Your task to perform on an android device: delete browsing data in the chrome app Image 0: 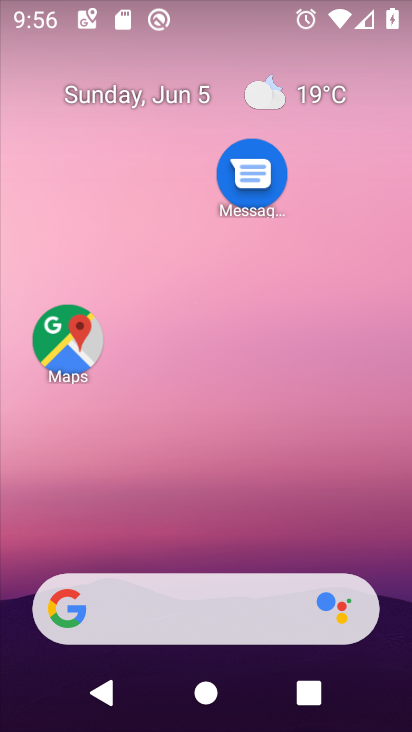
Step 0: drag from (145, 563) to (198, 364)
Your task to perform on an android device: delete browsing data in the chrome app Image 1: 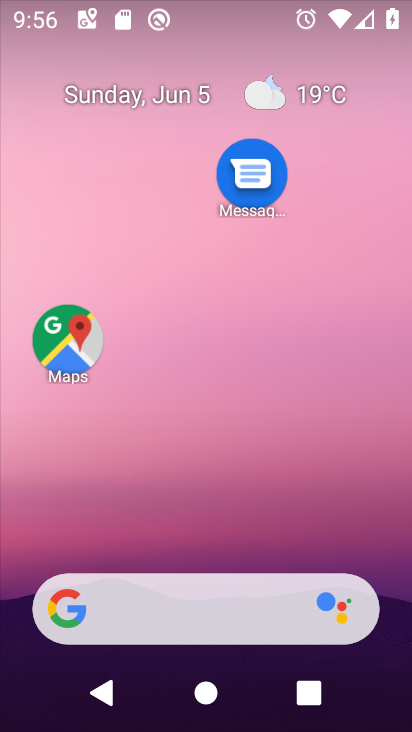
Step 1: drag from (227, 510) to (164, 8)
Your task to perform on an android device: delete browsing data in the chrome app Image 2: 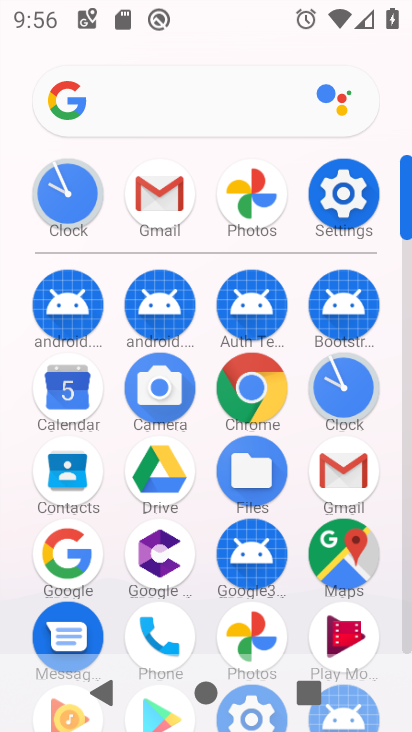
Step 2: click (259, 378)
Your task to perform on an android device: delete browsing data in the chrome app Image 3: 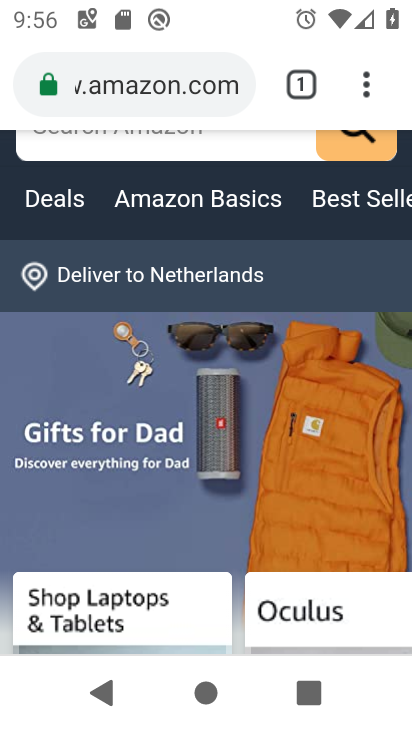
Step 3: drag from (246, 468) to (290, 23)
Your task to perform on an android device: delete browsing data in the chrome app Image 4: 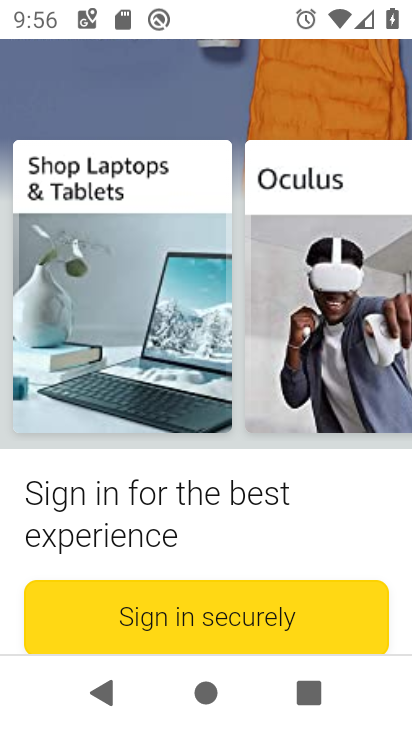
Step 4: drag from (211, 91) to (262, 648)
Your task to perform on an android device: delete browsing data in the chrome app Image 5: 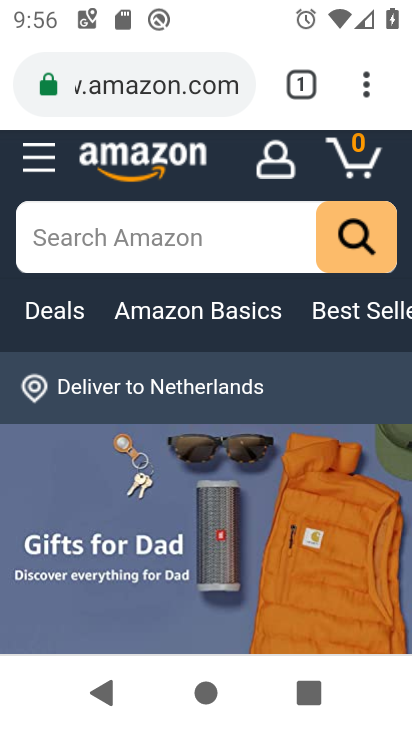
Step 5: click (361, 69)
Your task to perform on an android device: delete browsing data in the chrome app Image 6: 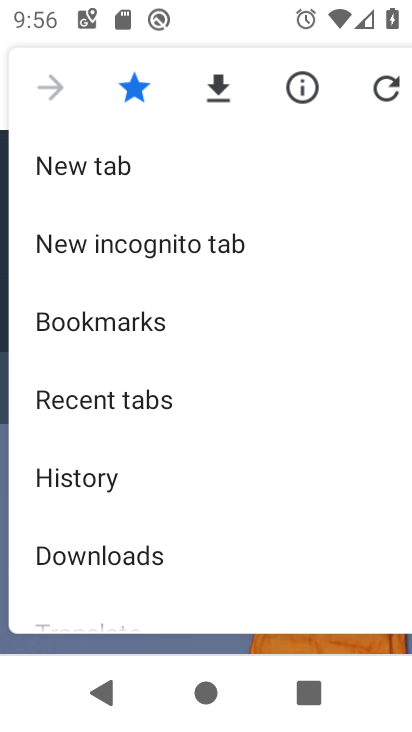
Step 6: drag from (181, 537) to (298, 86)
Your task to perform on an android device: delete browsing data in the chrome app Image 7: 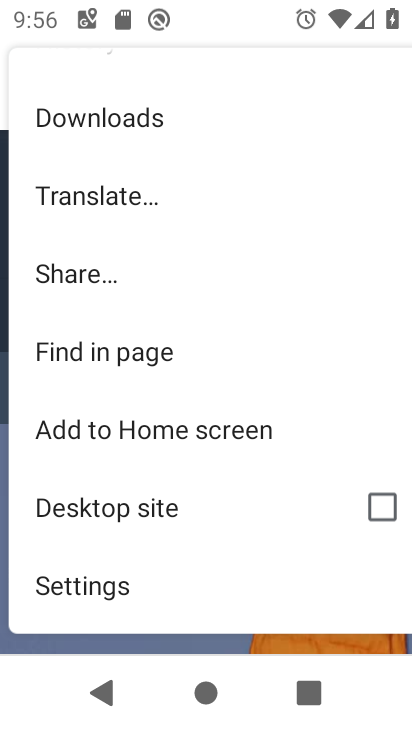
Step 7: click (121, 585)
Your task to perform on an android device: delete browsing data in the chrome app Image 8: 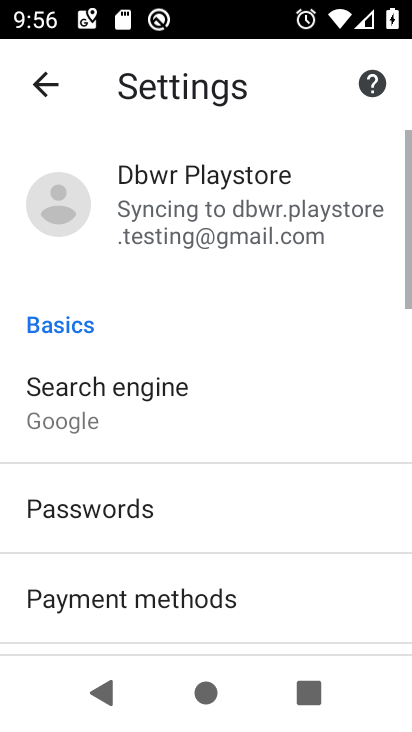
Step 8: click (45, 83)
Your task to perform on an android device: delete browsing data in the chrome app Image 9: 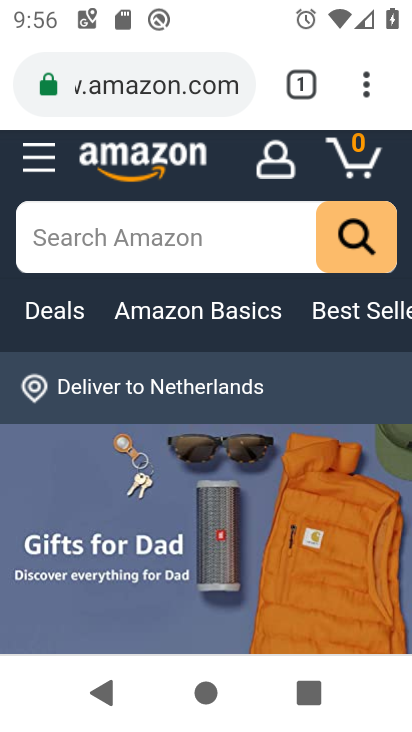
Step 9: click (374, 75)
Your task to perform on an android device: delete browsing data in the chrome app Image 10: 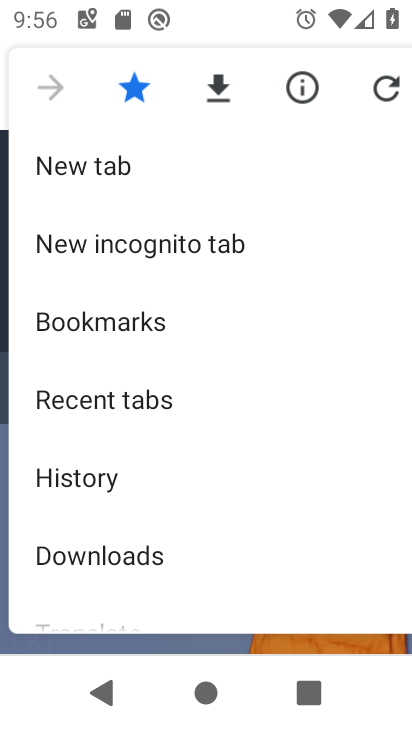
Step 10: click (95, 502)
Your task to perform on an android device: delete browsing data in the chrome app Image 11: 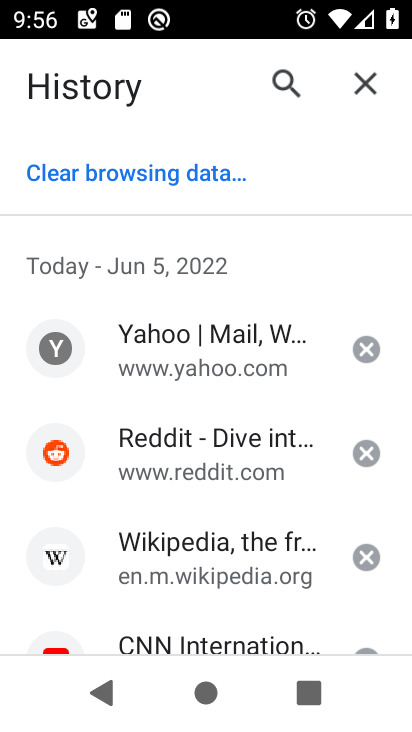
Step 11: click (61, 182)
Your task to perform on an android device: delete browsing data in the chrome app Image 12: 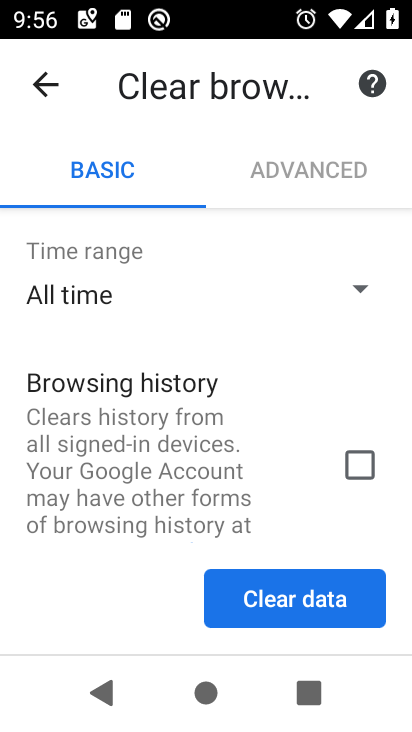
Step 12: click (354, 475)
Your task to perform on an android device: delete browsing data in the chrome app Image 13: 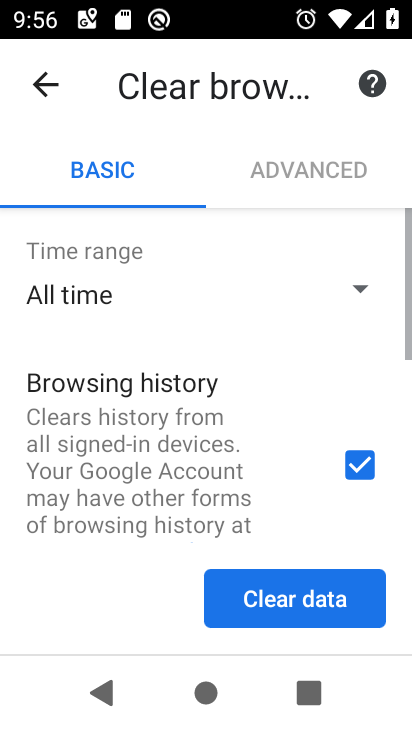
Step 13: click (269, 594)
Your task to perform on an android device: delete browsing data in the chrome app Image 14: 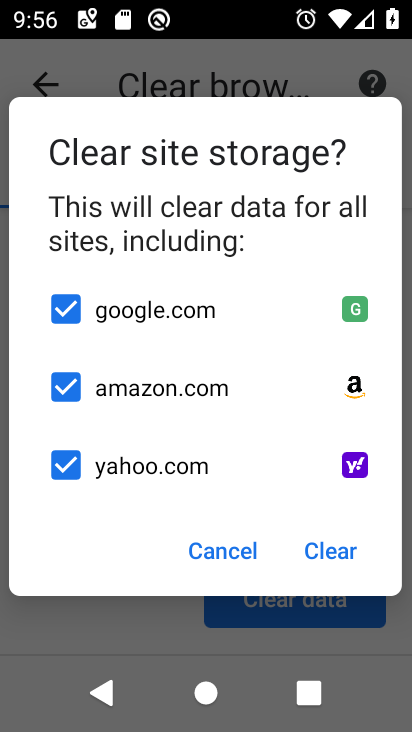
Step 14: click (317, 561)
Your task to perform on an android device: delete browsing data in the chrome app Image 15: 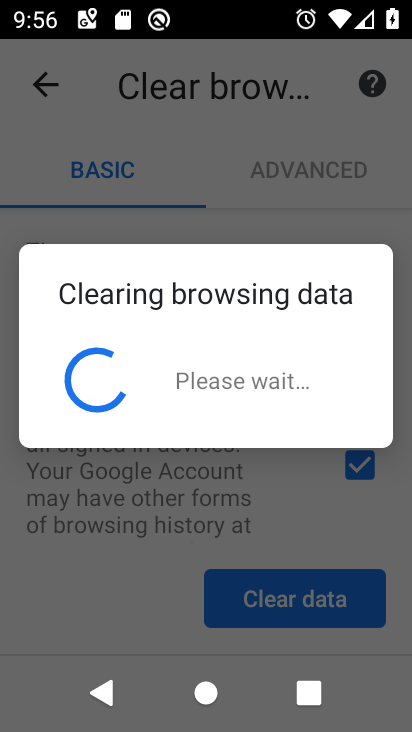
Step 15: task complete